Your task to perform on an android device: change your default location settings in chrome Image 0: 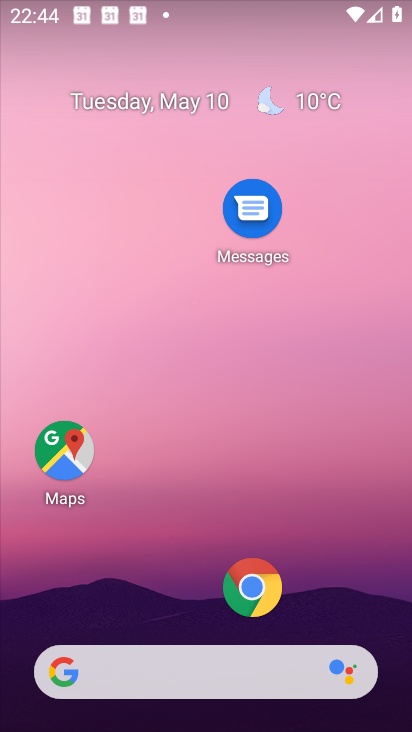
Step 0: click (239, 593)
Your task to perform on an android device: change your default location settings in chrome Image 1: 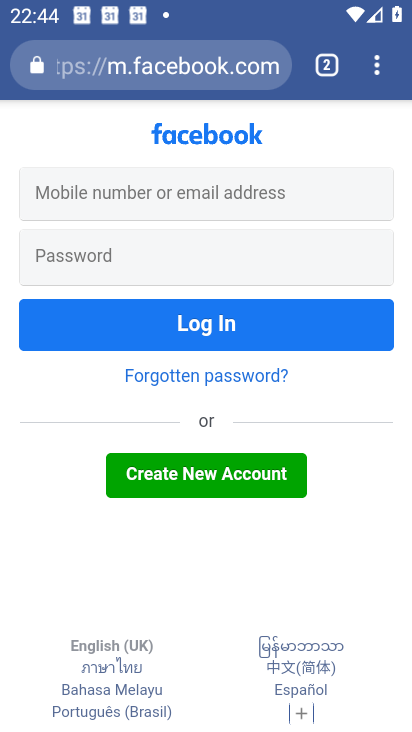
Step 1: click (379, 58)
Your task to perform on an android device: change your default location settings in chrome Image 2: 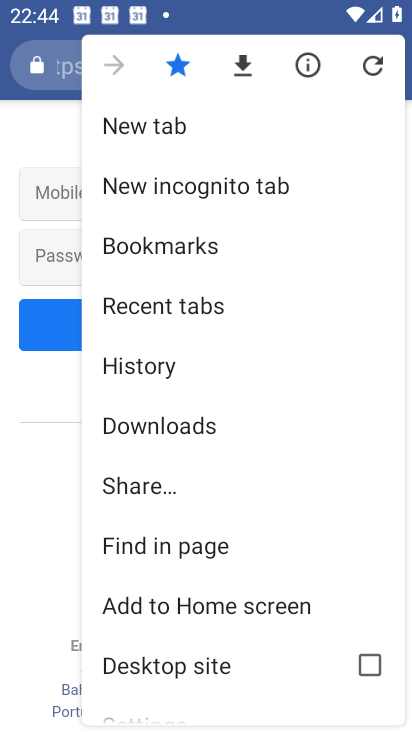
Step 2: drag from (203, 484) to (226, 182)
Your task to perform on an android device: change your default location settings in chrome Image 3: 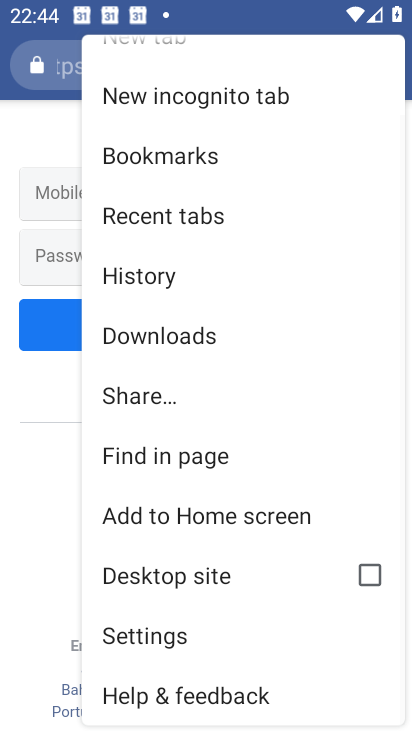
Step 3: click (183, 641)
Your task to perform on an android device: change your default location settings in chrome Image 4: 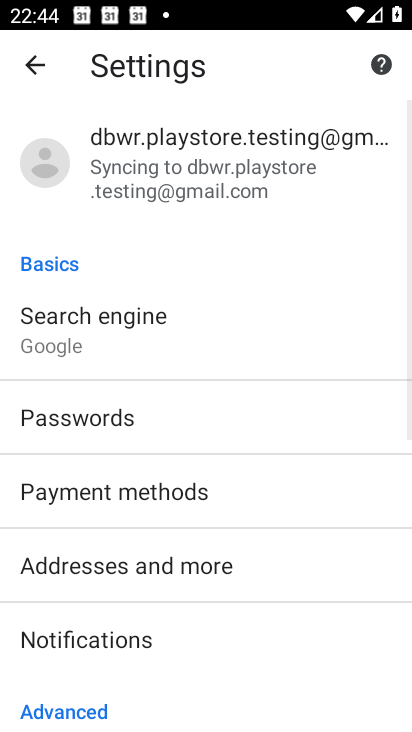
Step 4: drag from (136, 630) to (172, 318)
Your task to perform on an android device: change your default location settings in chrome Image 5: 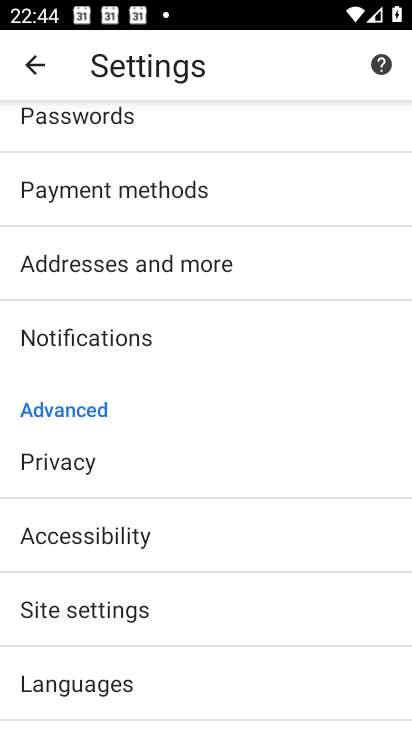
Step 5: click (137, 613)
Your task to perform on an android device: change your default location settings in chrome Image 6: 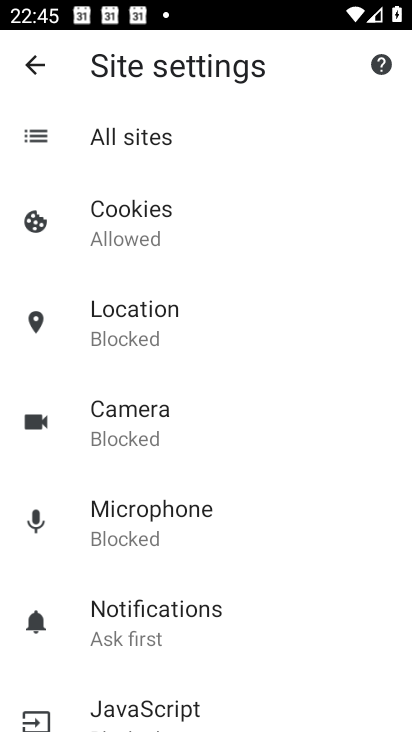
Step 6: click (107, 317)
Your task to perform on an android device: change your default location settings in chrome Image 7: 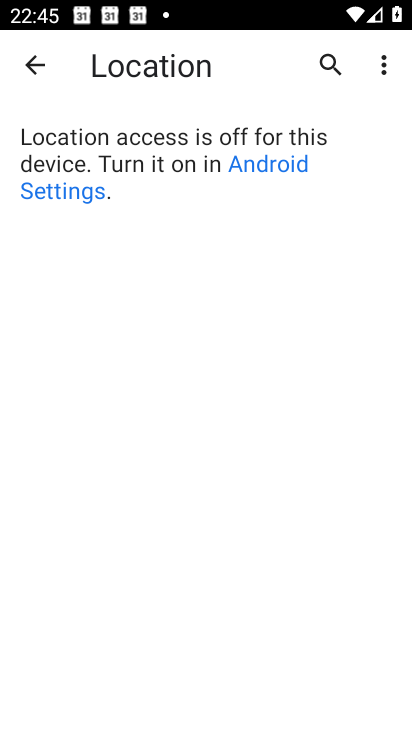
Step 7: click (285, 167)
Your task to perform on an android device: change your default location settings in chrome Image 8: 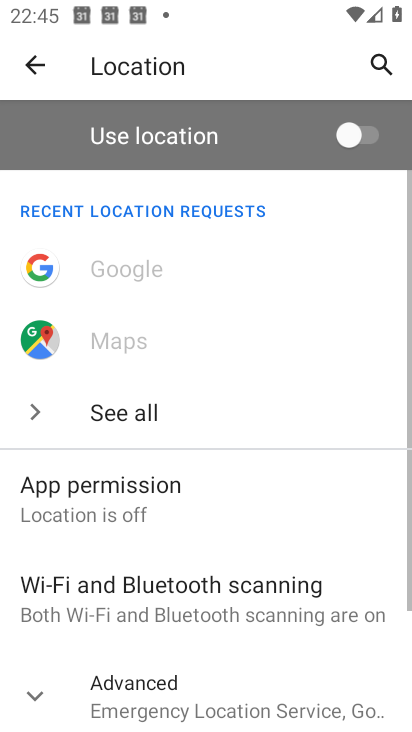
Step 8: click (379, 125)
Your task to perform on an android device: change your default location settings in chrome Image 9: 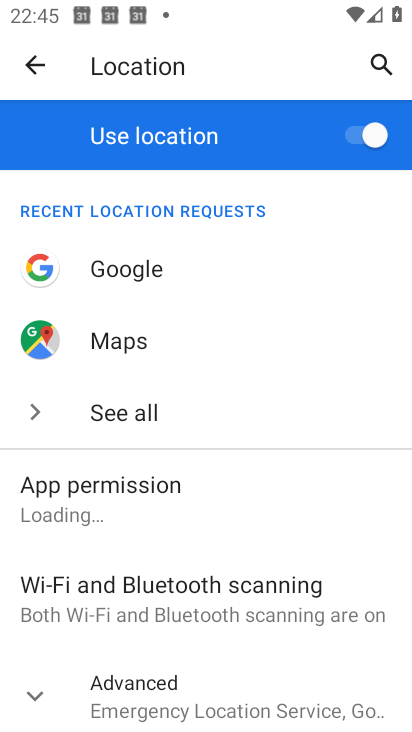
Step 9: task complete